Your task to perform on an android device: toggle data saver in the chrome app Image 0: 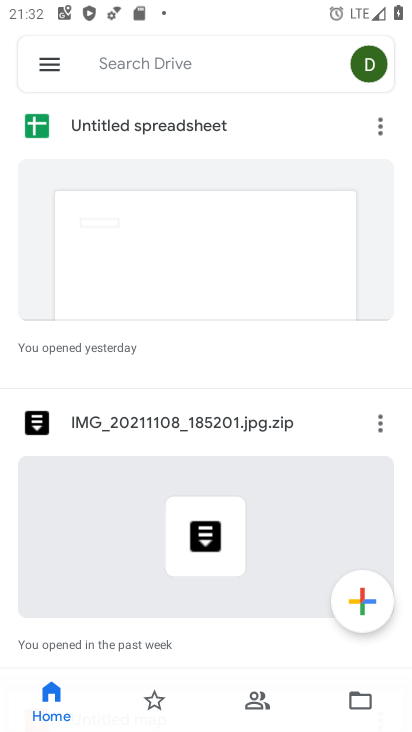
Step 0: press back button
Your task to perform on an android device: toggle data saver in the chrome app Image 1: 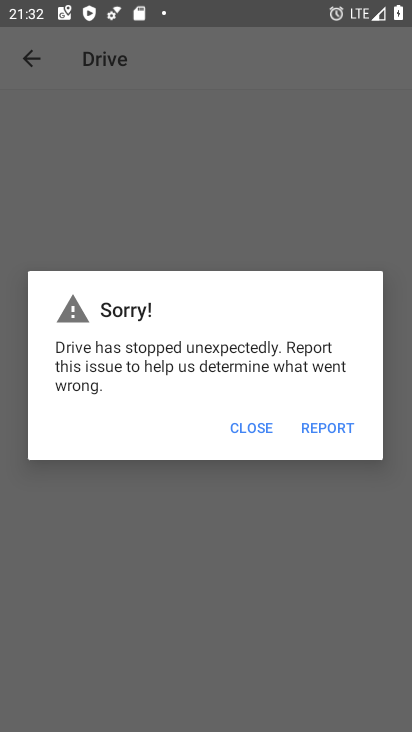
Step 1: press back button
Your task to perform on an android device: toggle data saver in the chrome app Image 2: 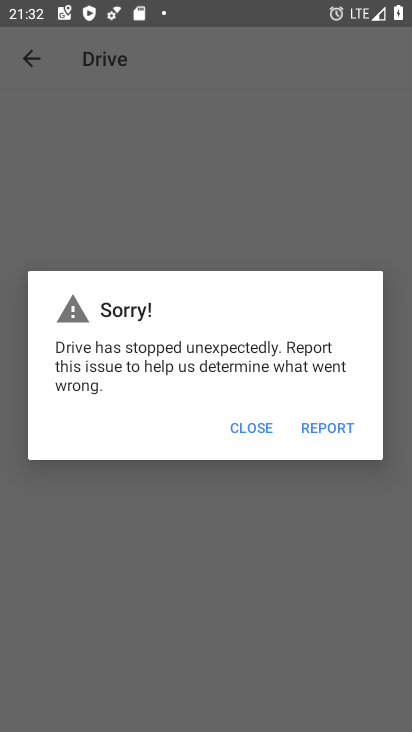
Step 2: press home button
Your task to perform on an android device: toggle data saver in the chrome app Image 3: 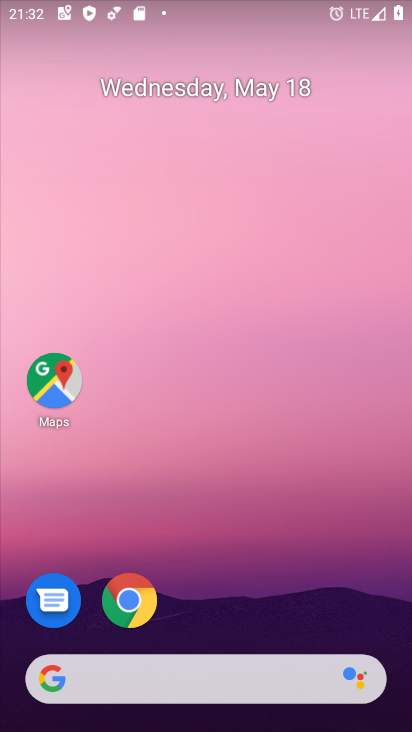
Step 3: click (143, 594)
Your task to perform on an android device: toggle data saver in the chrome app Image 4: 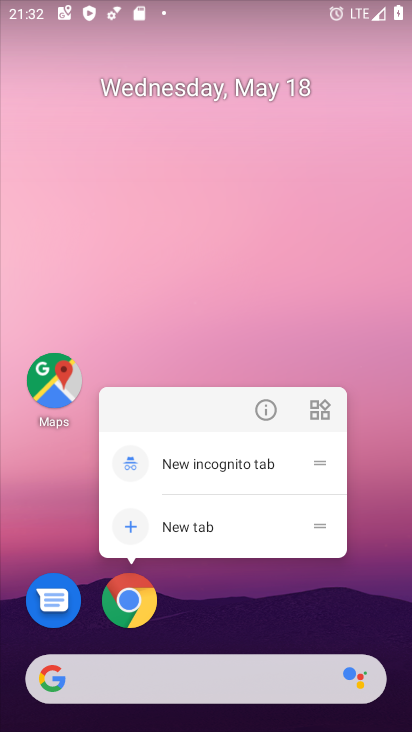
Step 4: click (114, 604)
Your task to perform on an android device: toggle data saver in the chrome app Image 5: 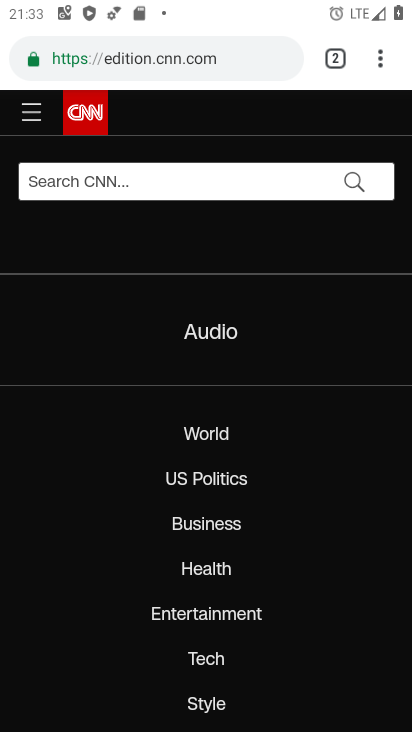
Step 5: drag from (380, 52) to (177, 616)
Your task to perform on an android device: toggle data saver in the chrome app Image 6: 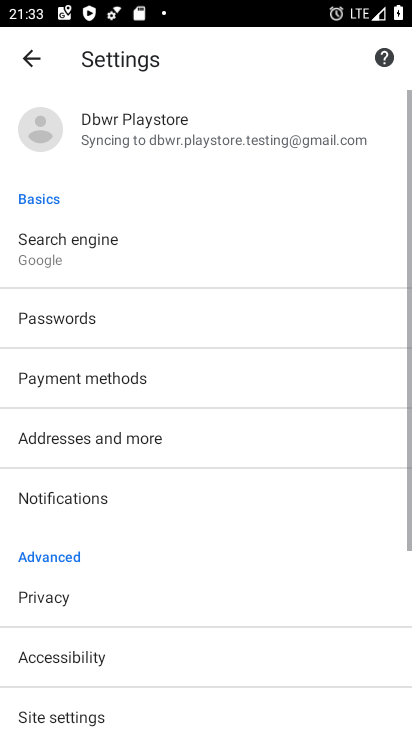
Step 6: drag from (125, 597) to (244, 107)
Your task to perform on an android device: toggle data saver in the chrome app Image 7: 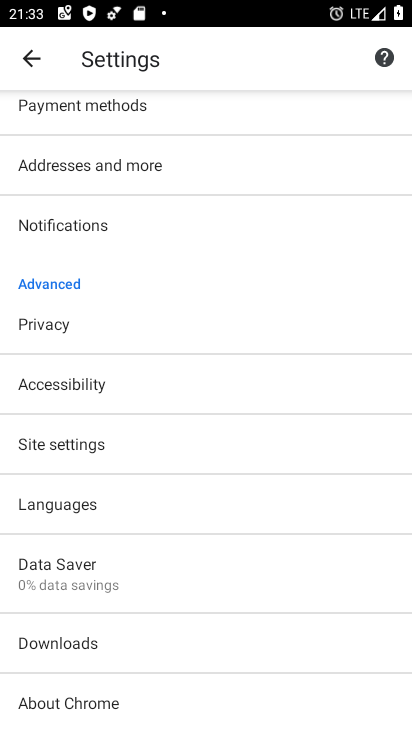
Step 7: click (48, 573)
Your task to perform on an android device: toggle data saver in the chrome app Image 8: 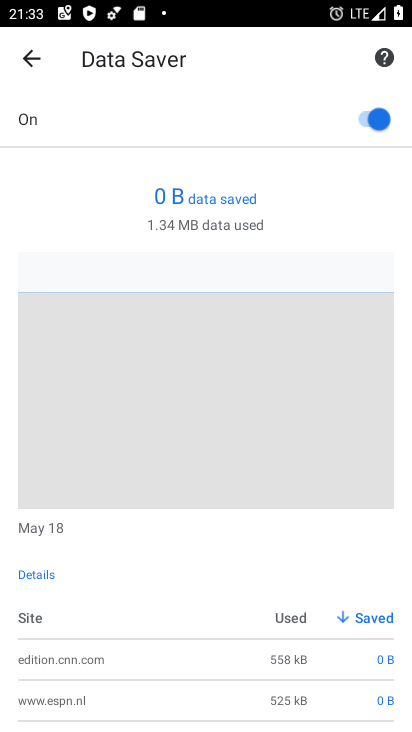
Step 8: click (372, 115)
Your task to perform on an android device: toggle data saver in the chrome app Image 9: 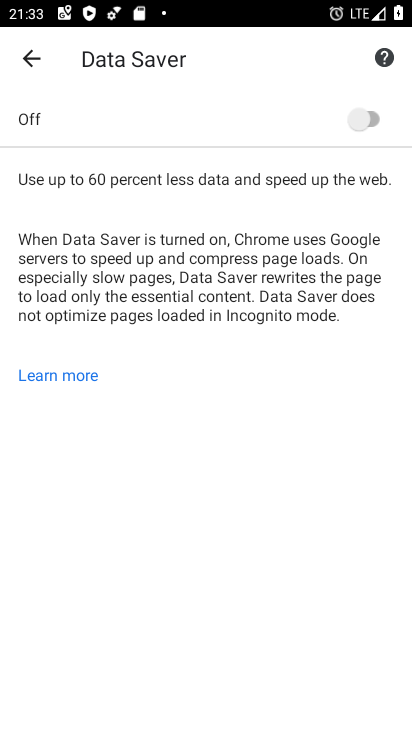
Step 9: task complete